Your task to perform on an android device: What's the weather? Image 0: 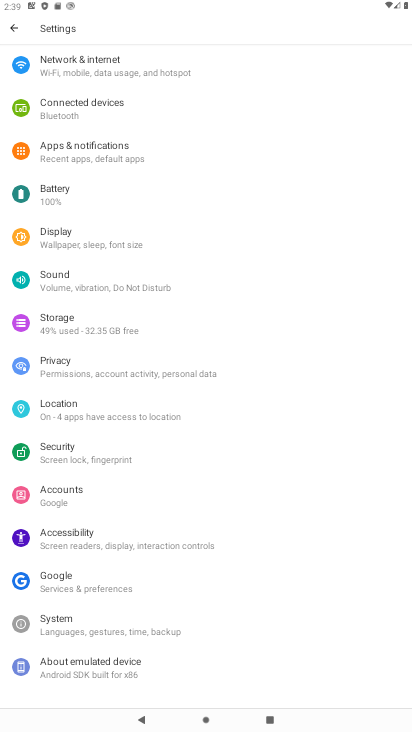
Step 0: press home button
Your task to perform on an android device: What's the weather? Image 1: 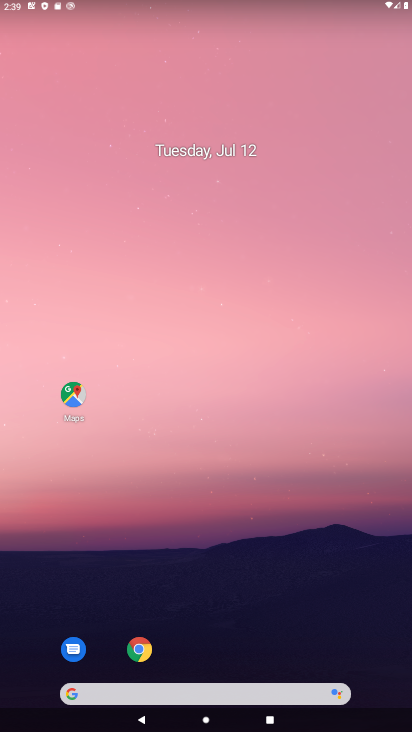
Step 1: drag from (281, 640) to (161, 3)
Your task to perform on an android device: What's the weather? Image 2: 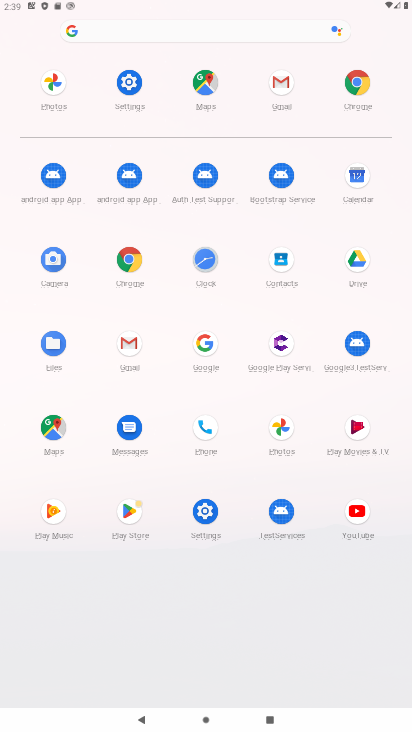
Step 2: click (159, 52)
Your task to perform on an android device: What's the weather? Image 3: 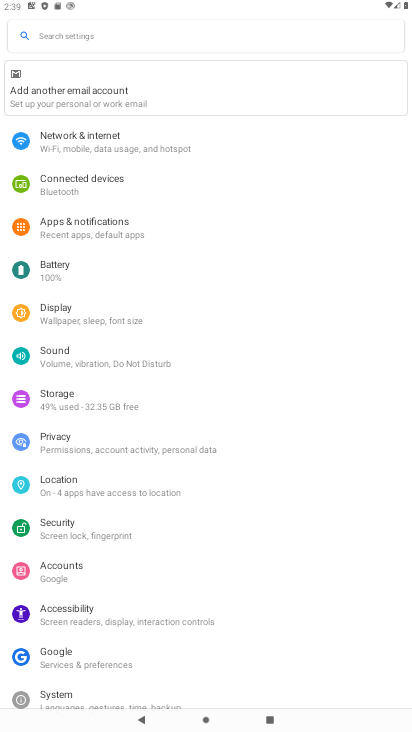
Step 3: press home button
Your task to perform on an android device: What's the weather? Image 4: 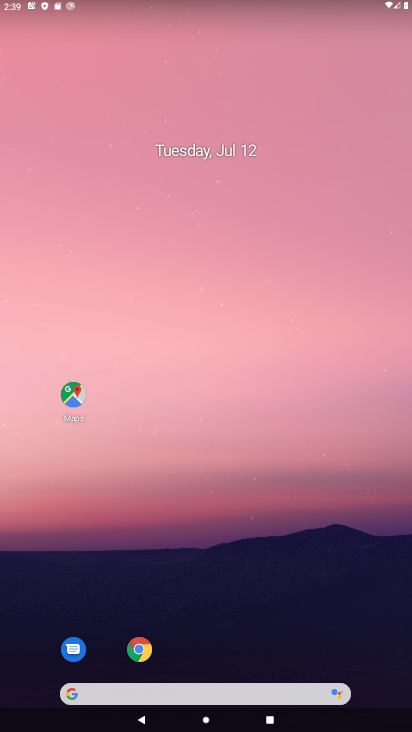
Step 4: click (251, 691)
Your task to perform on an android device: What's the weather? Image 5: 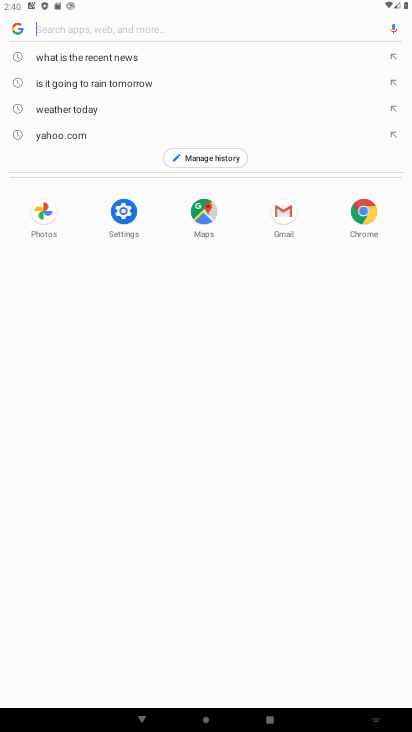
Step 5: click (111, 81)
Your task to perform on an android device: What's the weather? Image 6: 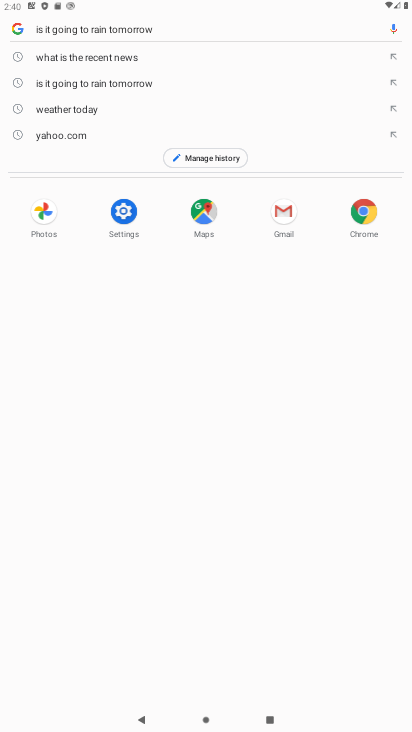
Step 6: task complete